Your task to perform on an android device: Open Chrome and go to settings Image 0: 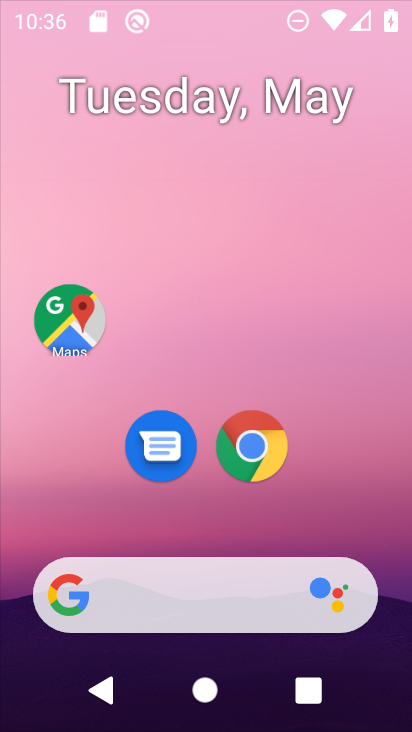
Step 0: drag from (255, 275) to (304, 368)
Your task to perform on an android device: Open Chrome and go to settings Image 1: 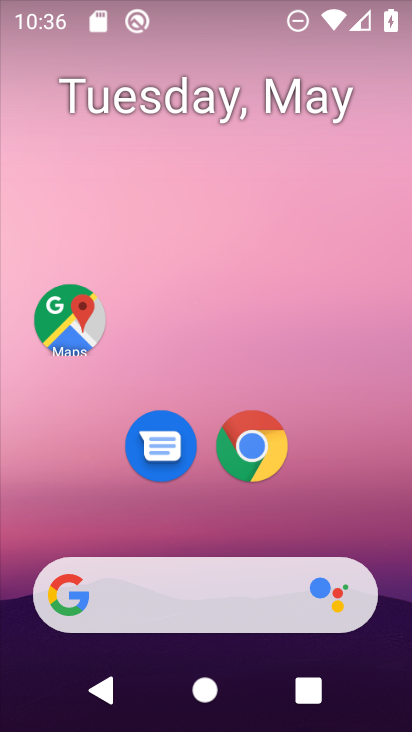
Step 1: click (256, 458)
Your task to perform on an android device: Open Chrome and go to settings Image 2: 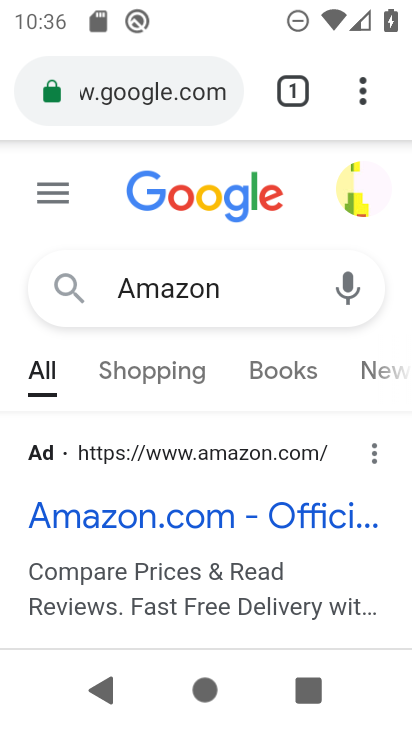
Step 2: click (374, 94)
Your task to perform on an android device: Open Chrome and go to settings Image 3: 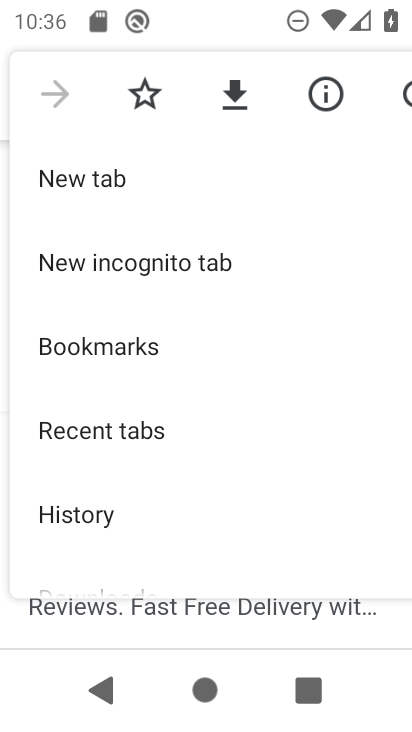
Step 3: drag from (180, 540) to (235, 275)
Your task to perform on an android device: Open Chrome and go to settings Image 4: 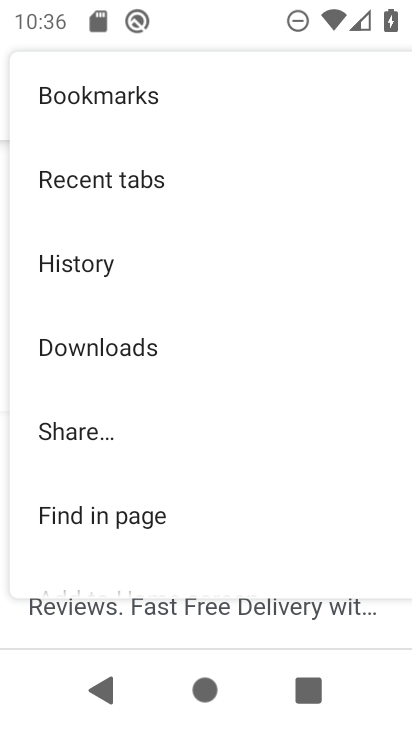
Step 4: drag from (164, 567) to (222, 227)
Your task to perform on an android device: Open Chrome and go to settings Image 5: 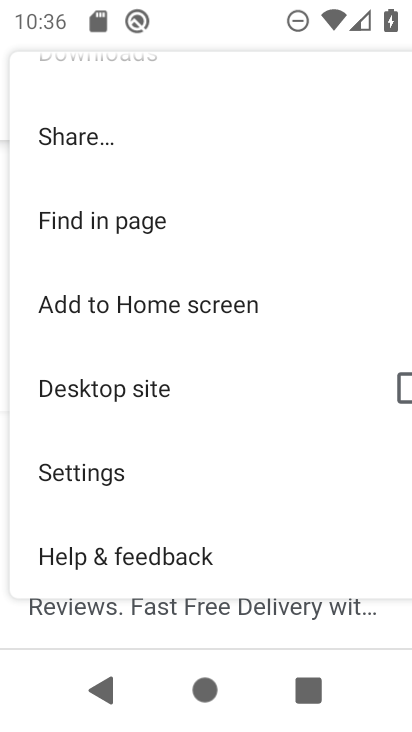
Step 5: click (92, 485)
Your task to perform on an android device: Open Chrome and go to settings Image 6: 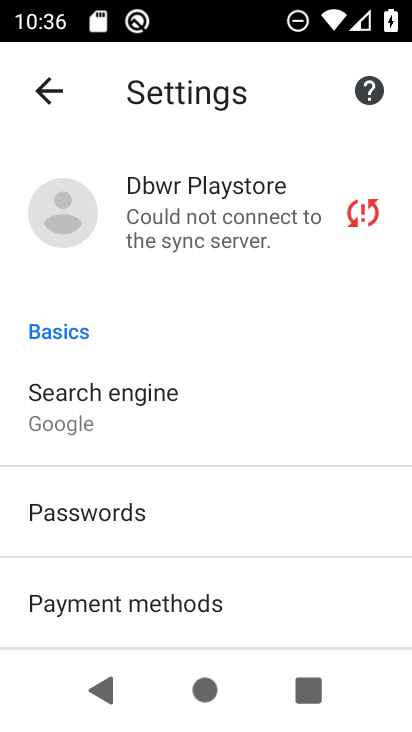
Step 6: task complete